Your task to perform on an android device: turn vacation reply on in the gmail app Image 0: 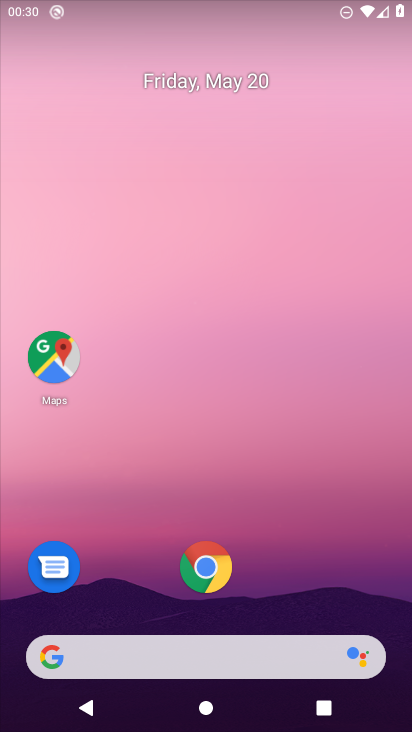
Step 0: press home button
Your task to perform on an android device: turn vacation reply on in the gmail app Image 1: 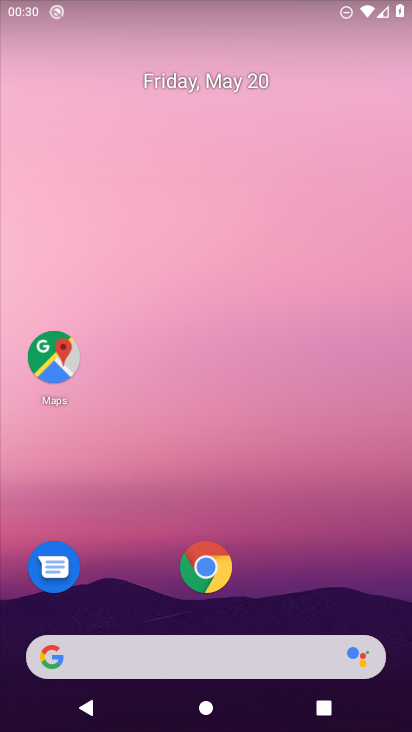
Step 1: press home button
Your task to perform on an android device: turn vacation reply on in the gmail app Image 2: 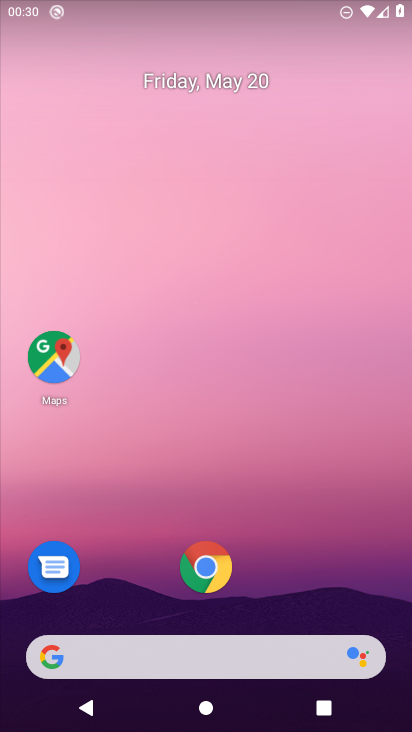
Step 2: press home button
Your task to perform on an android device: turn vacation reply on in the gmail app Image 3: 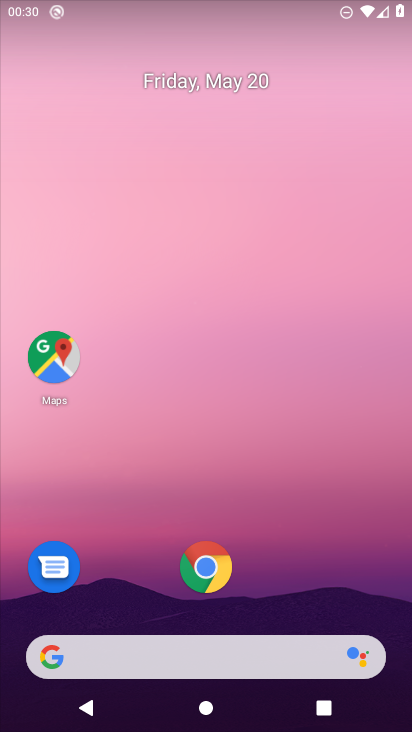
Step 3: drag from (267, 611) to (277, 13)
Your task to perform on an android device: turn vacation reply on in the gmail app Image 4: 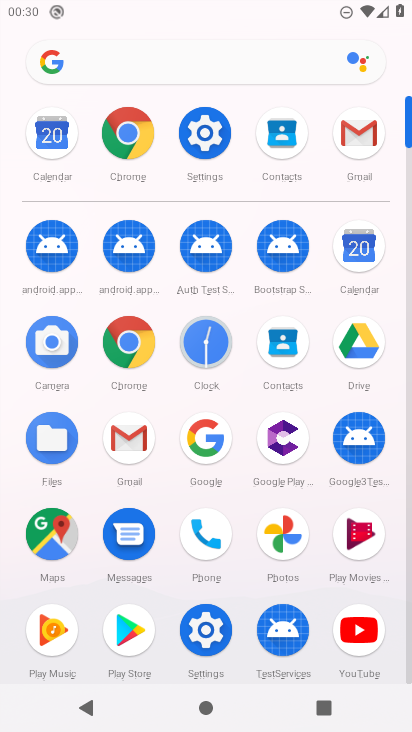
Step 4: click (126, 436)
Your task to perform on an android device: turn vacation reply on in the gmail app Image 5: 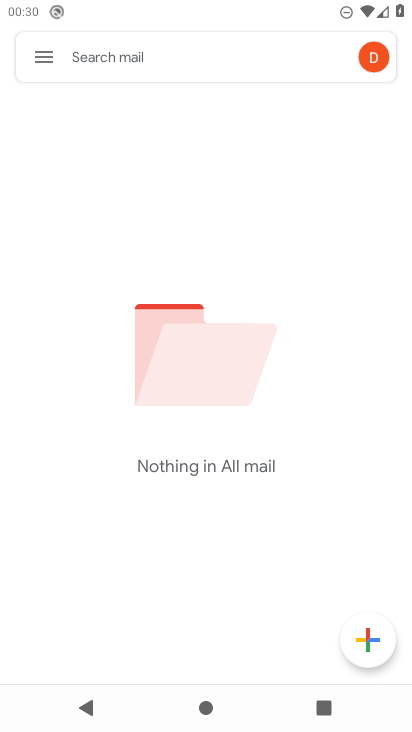
Step 5: click (32, 56)
Your task to perform on an android device: turn vacation reply on in the gmail app Image 6: 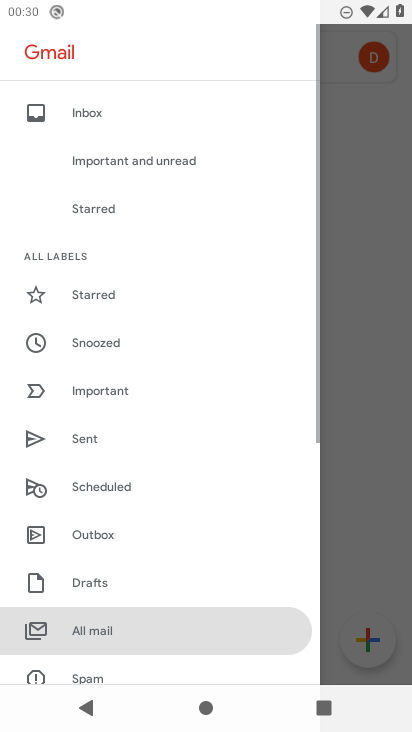
Step 6: drag from (140, 638) to (178, 82)
Your task to perform on an android device: turn vacation reply on in the gmail app Image 7: 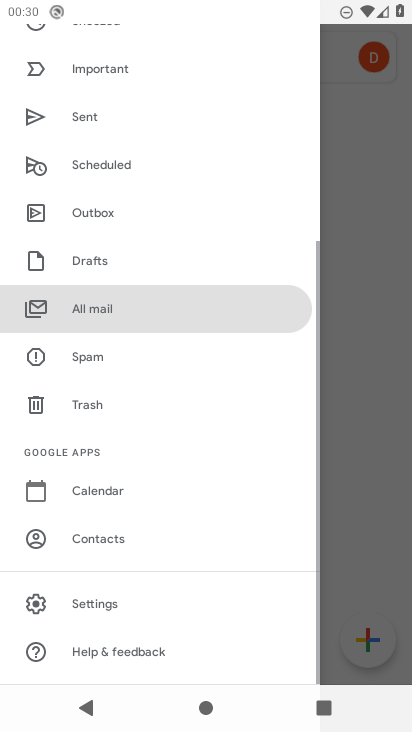
Step 7: click (126, 596)
Your task to perform on an android device: turn vacation reply on in the gmail app Image 8: 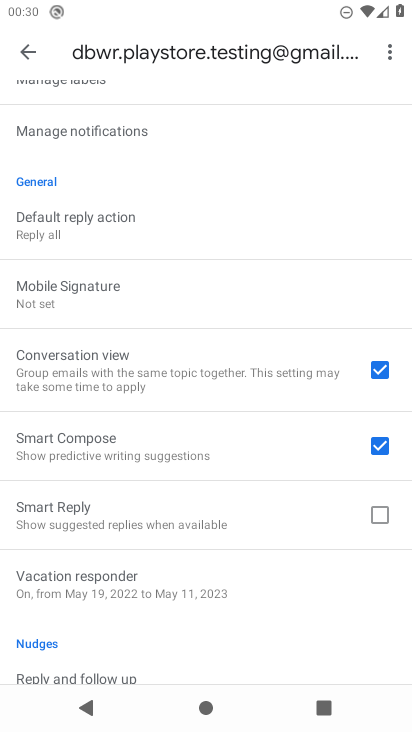
Step 8: click (155, 596)
Your task to perform on an android device: turn vacation reply on in the gmail app Image 9: 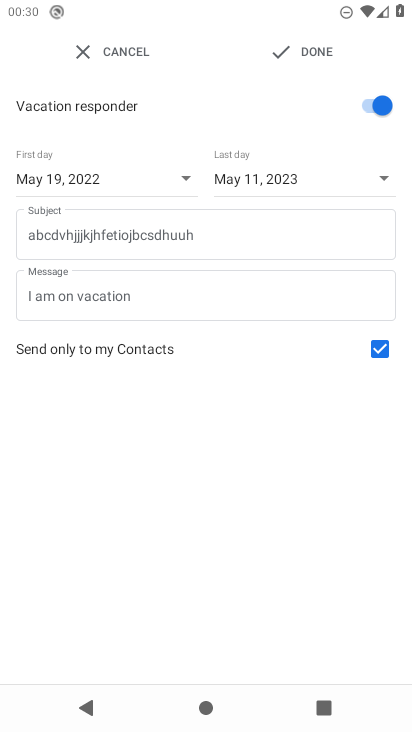
Step 9: task complete